Your task to perform on an android device: toggle javascript in the chrome app Image 0: 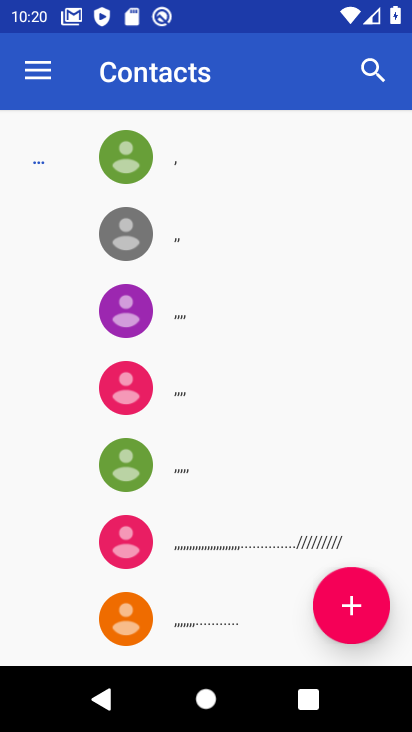
Step 0: press home button
Your task to perform on an android device: toggle javascript in the chrome app Image 1: 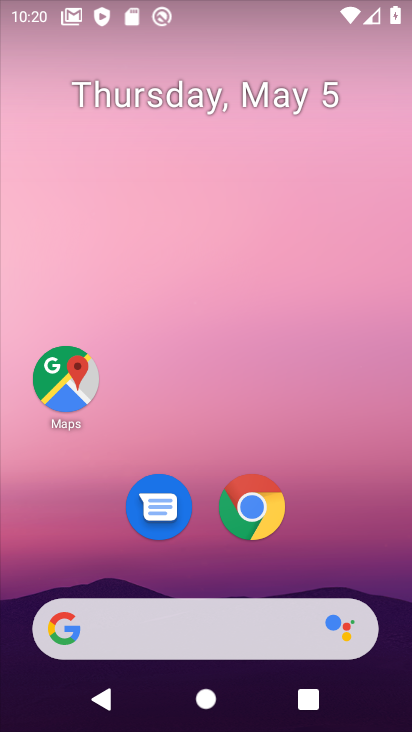
Step 1: click (248, 510)
Your task to perform on an android device: toggle javascript in the chrome app Image 2: 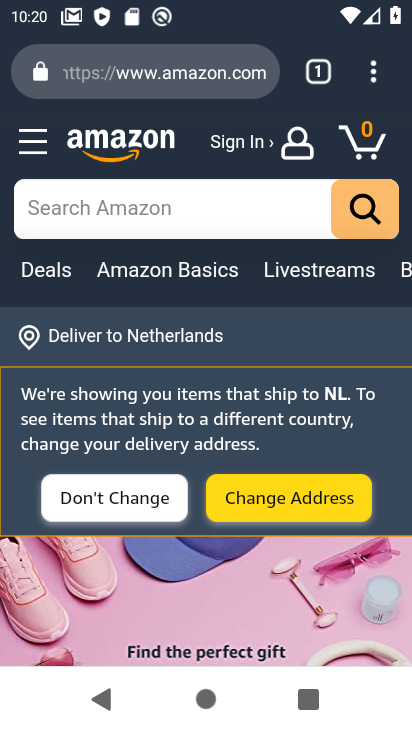
Step 2: click (374, 76)
Your task to perform on an android device: toggle javascript in the chrome app Image 3: 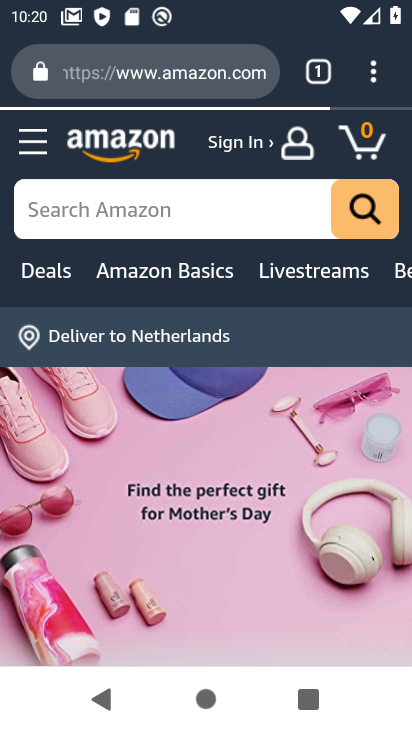
Step 3: drag from (374, 76) to (133, 507)
Your task to perform on an android device: toggle javascript in the chrome app Image 4: 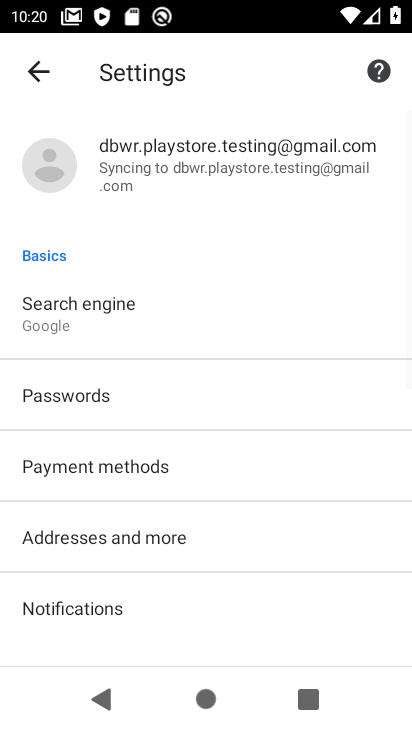
Step 4: drag from (306, 522) to (312, 180)
Your task to perform on an android device: toggle javascript in the chrome app Image 5: 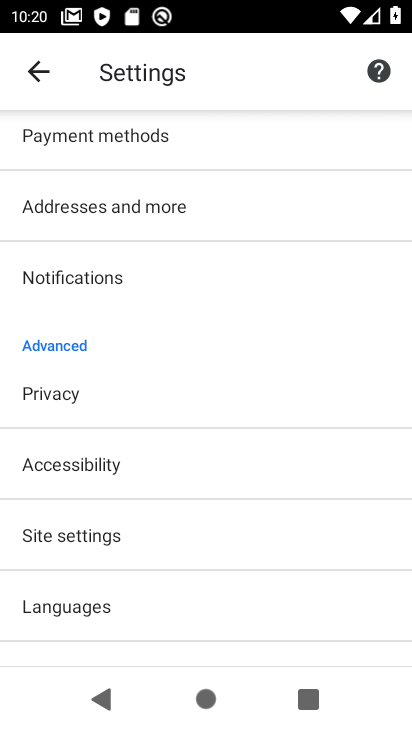
Step 5: click (81, 541)
Your task to perform on an android device: toggle javascript in the chrome app Image 6: 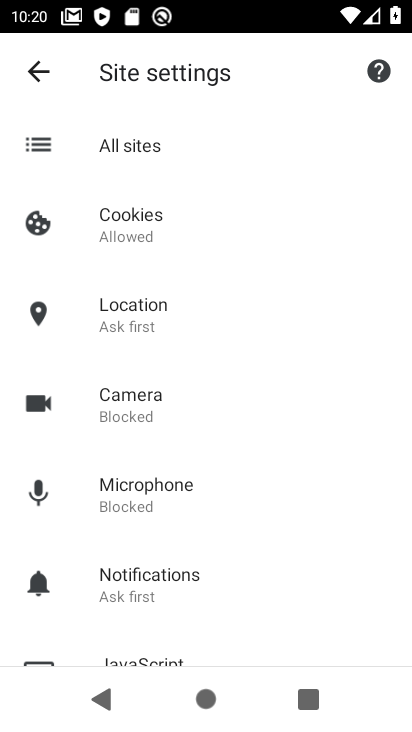
Step 6: drag from (279, 564) to (282, 375)
Your task to perform on an android device: toggle javascript in the chrome app Image 7: 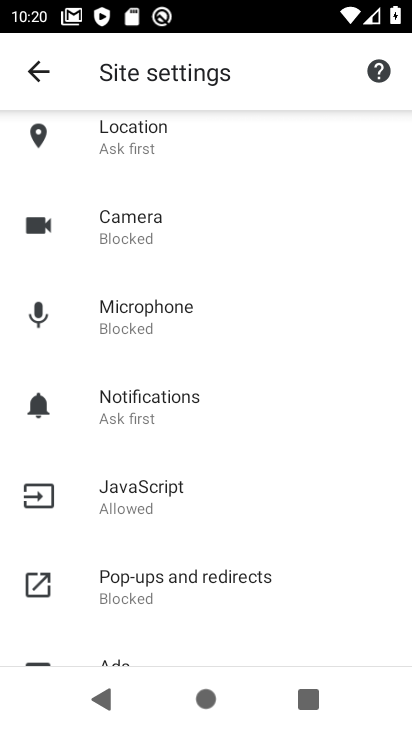
Step 7: click (121, 502)
Your task to perform on an android device: toggle javascript in the chrome app Image 8: 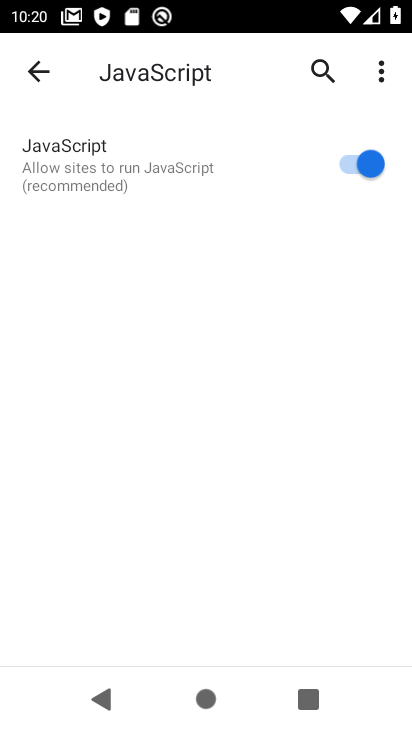
Step 8: click (365, 164)
Your task to perform on an android device: toggle javascript in the chrome app Image 9: 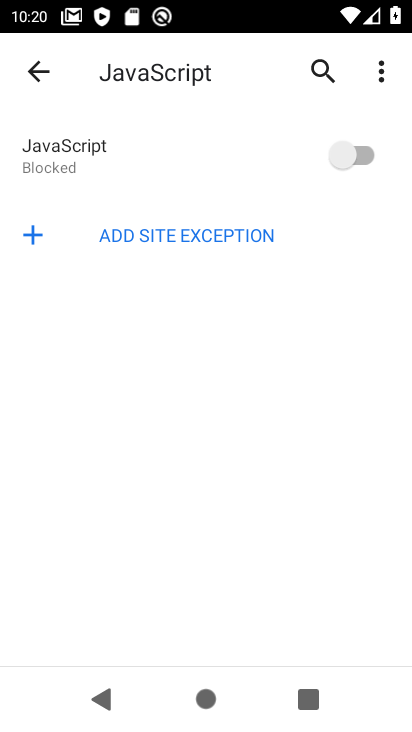
Step 9: task complete